Your task to perform on an android device: Go to notification settings Image 0: 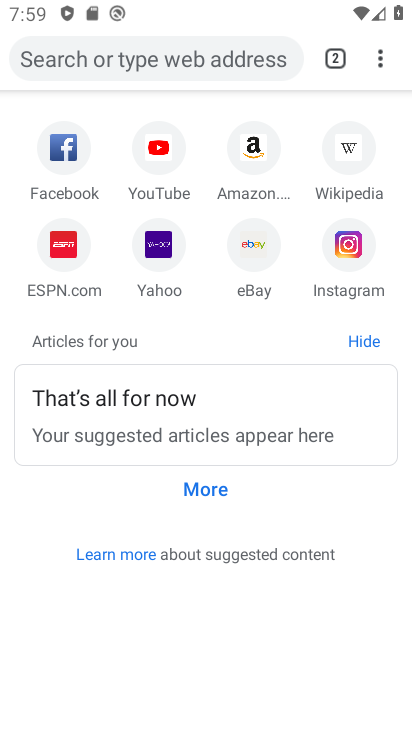
Step 0: press home button
Your task to perform on an android device: Go to notification settings Image 1: 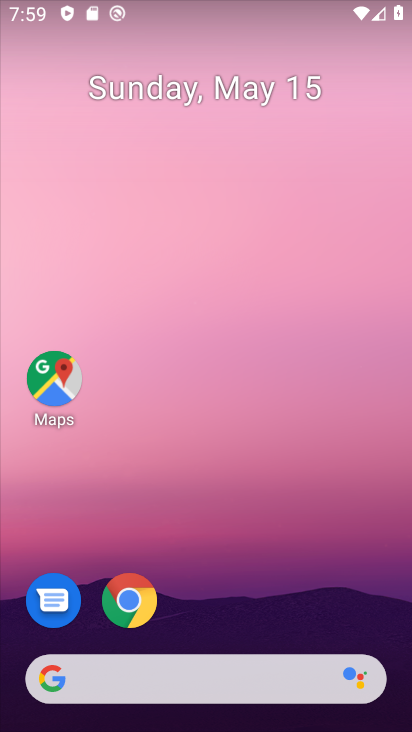
Step 1: drag from (228, 551) to (64, 80)
Your task to perform on an android device: Go to notification settings Image 2: 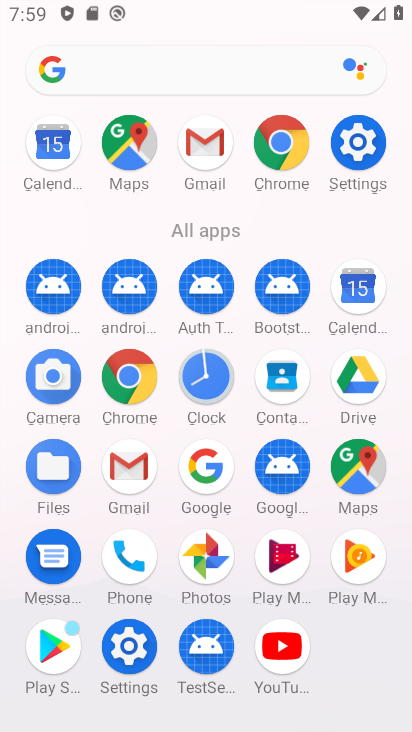
Step 2: click (361, 152)
Your task to perform on an android device: Go to notification settings Image 3: 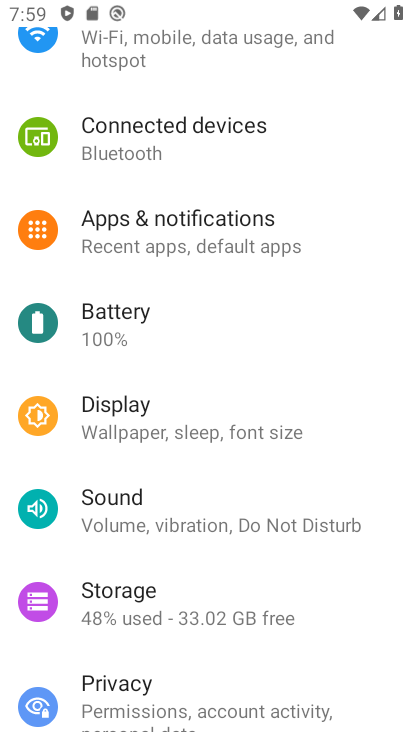
Step 3: click (179, 239)
Your task to perform on an android device: Go to notification settings Image 4: 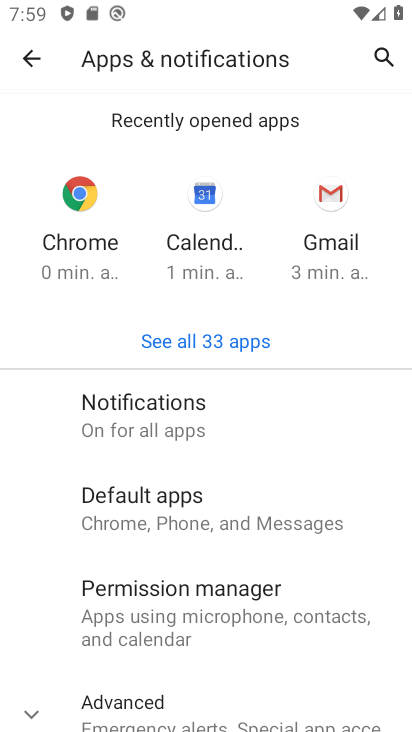
Step 4: click (146, 716)
Your task to perform on an android device: Go to notification settings Image 5: 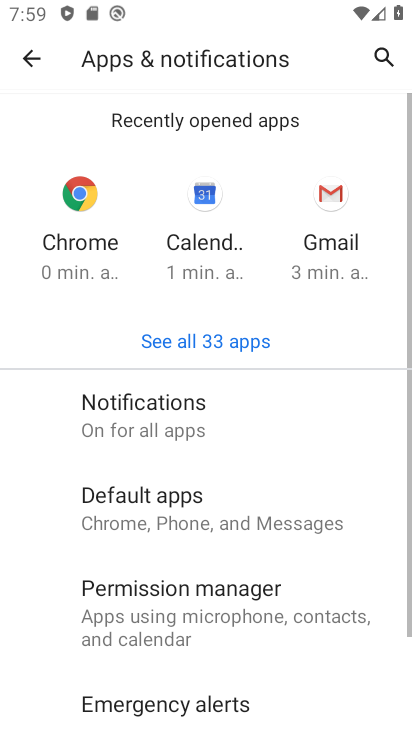
Step 5: drag from (138, 712) to (114, 293)
Your task to perform on an android device: Go to notification settings Image 6: 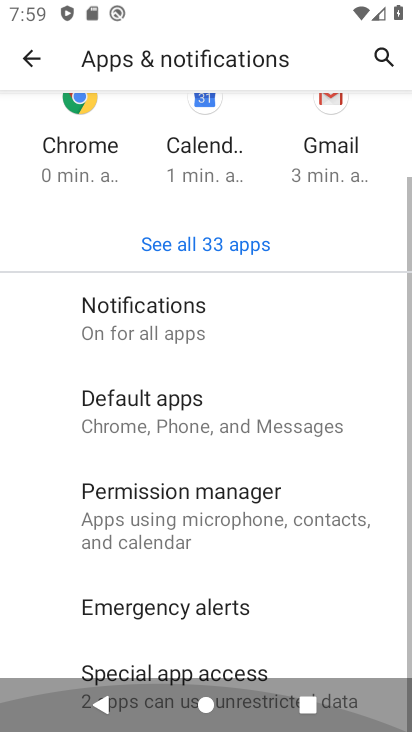
Step 6: click (115, 223)
Your task to perform on an android device: Go to notification settings Image 7: 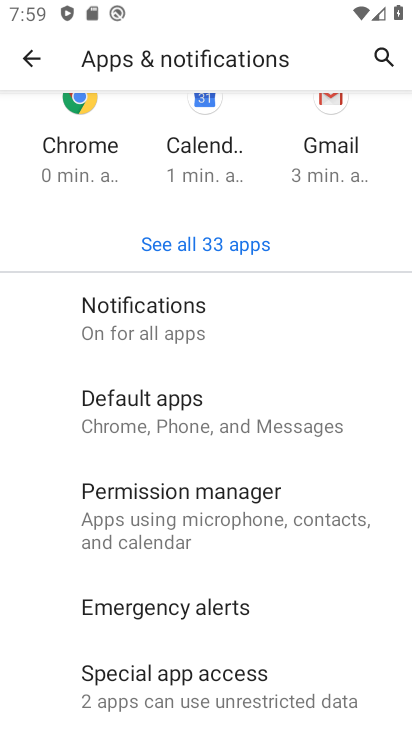
Step 7: task complete